Your task to perform on an android device: turn off smart reply in the gmail app Image 0: 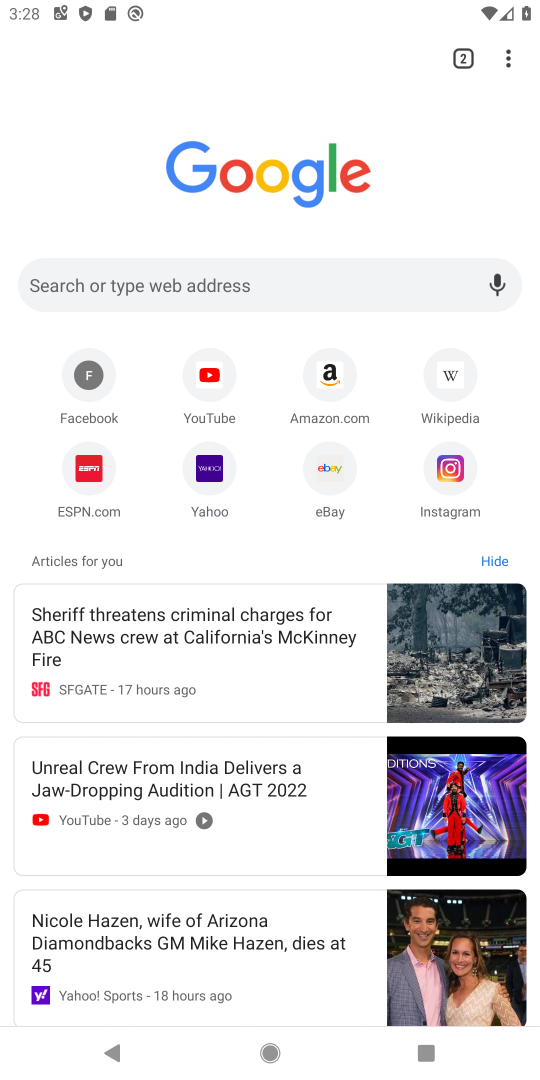
Step 0: press home button
Your task to perform on an android device: turn off smart reply in the gmail app Image 1: 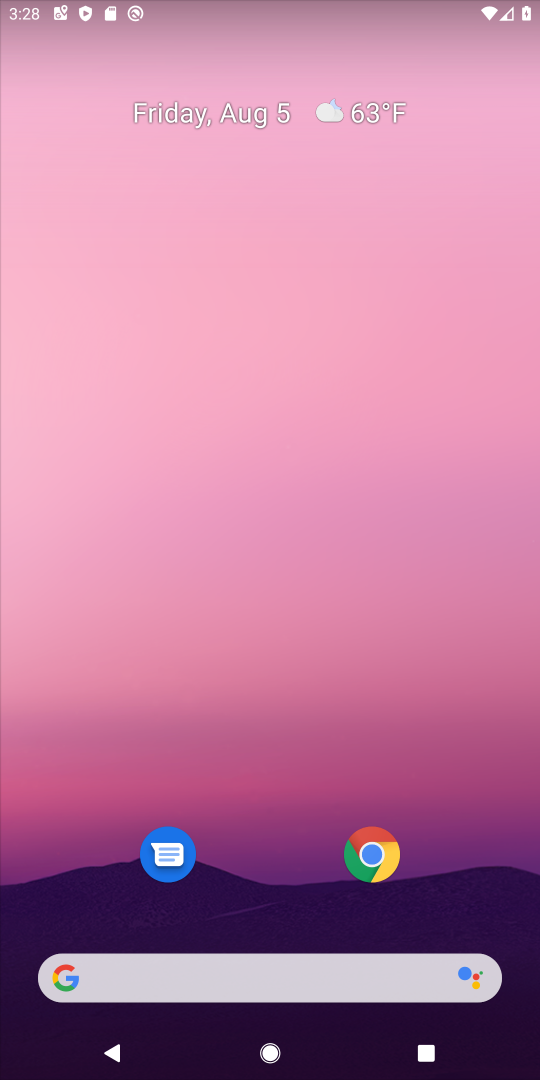
Step 1: drag from (39, 1044) to (397, 367)
Your task to perform on an android device: turn off smart reply in the gmail app Image 2: 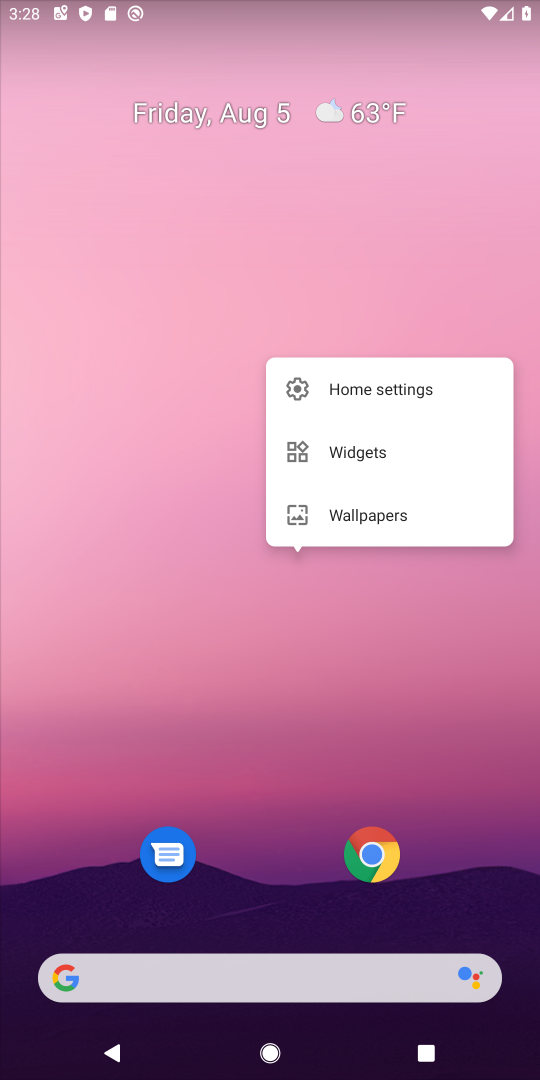
Step 2: drag from (28, 1051) to (165, 419)
Your task to perform on an android device: turn off smart reply in the gmail app Image 3: 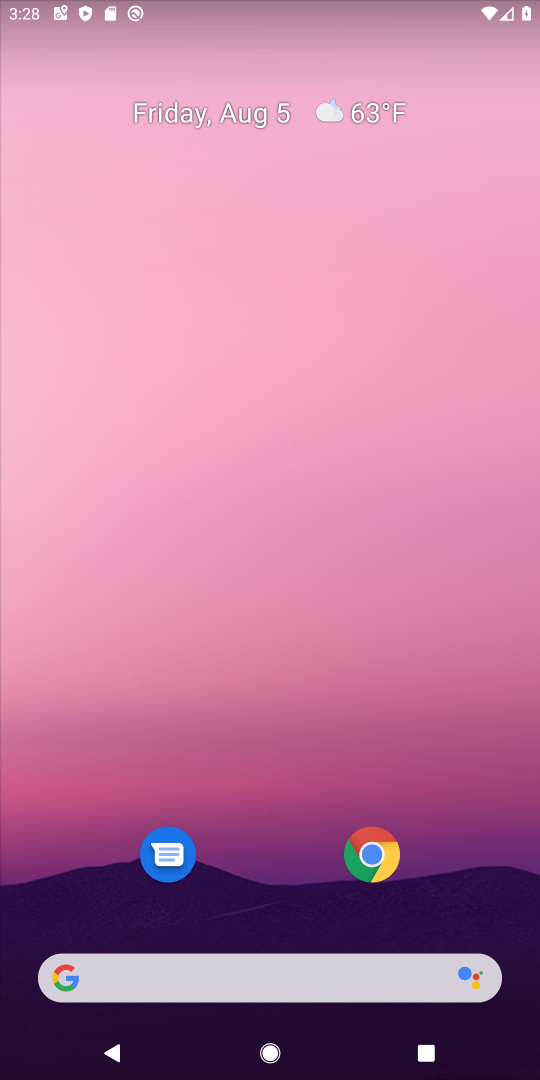
Step 3: drag from (207, 491) to (372, 255)
Your task to perform on an android device: turn off smart reply in the gmail app Image 4: 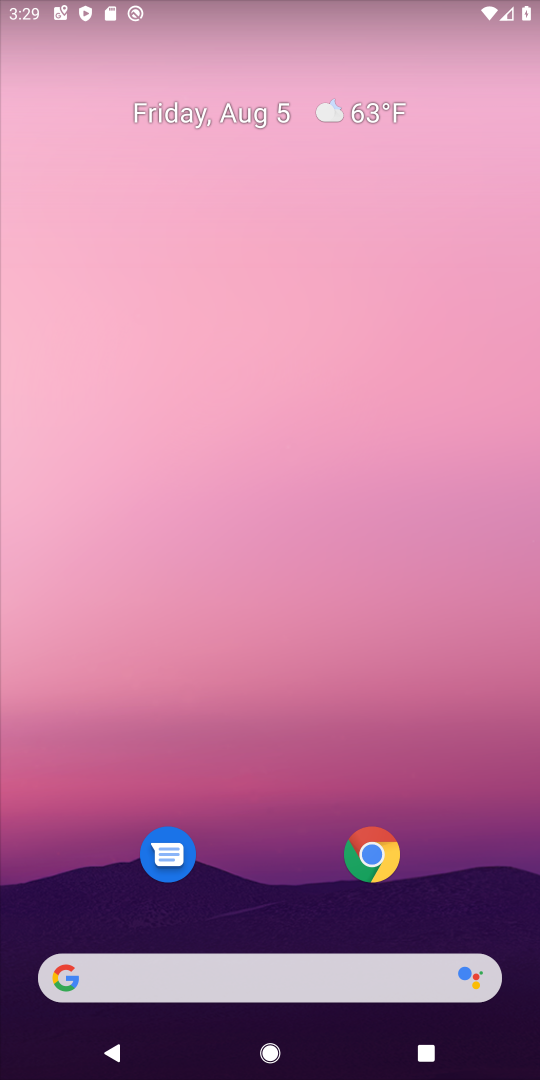
Step 4: drag from (66, 1030) to (304, 329)
Your task to perform on an android device: turn off smart reply in the gmail app Image 5: 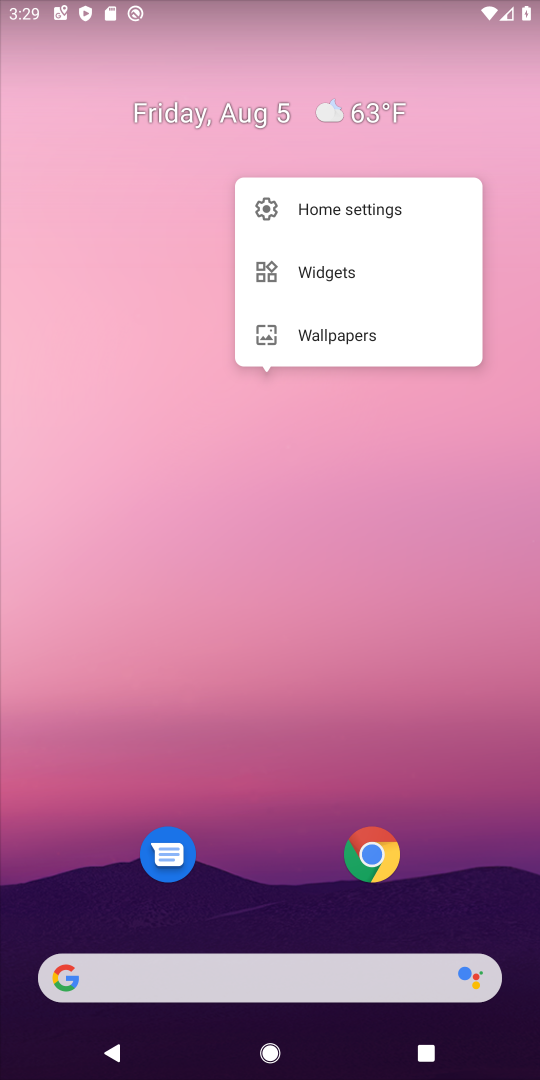
Step 5: drag from (85, 1032) to (408, 332)
Your task to perform on an android device: turn off smart reply in the gmail app Image 6: 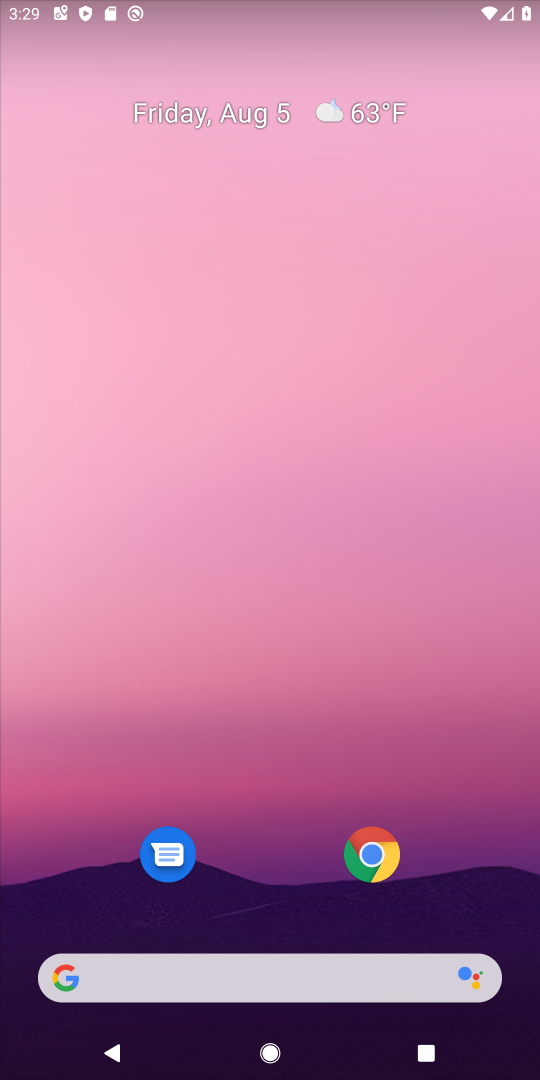
Step 6: drag from (182, 1014) to (350, 213)
Your task to perform on an android device: turn off smart reply in the gmail app Image 7: 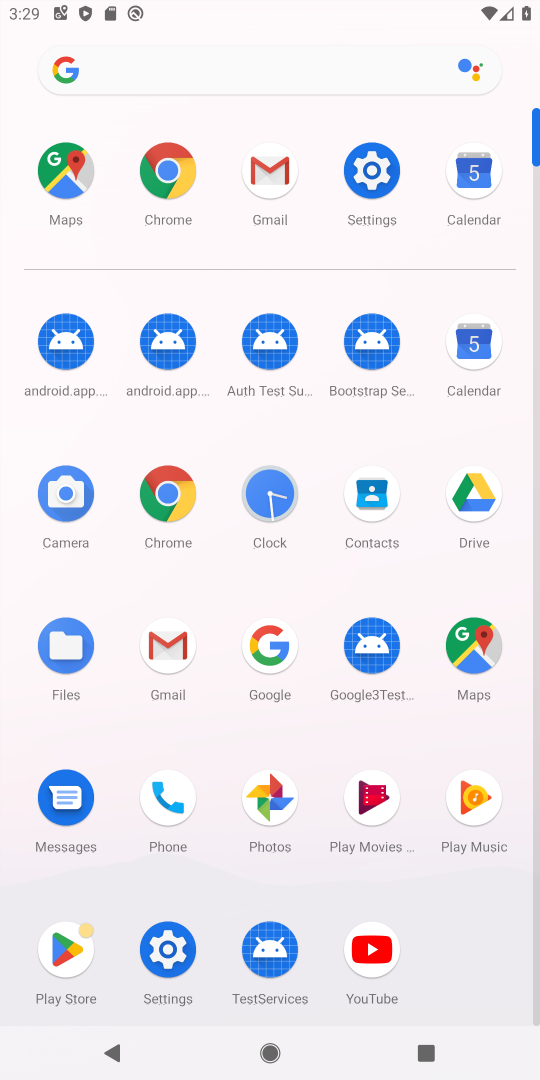
Step 7: click (279, 179)
Your task to perform on an android device: turn off smart reply in the gmail app Image 8: 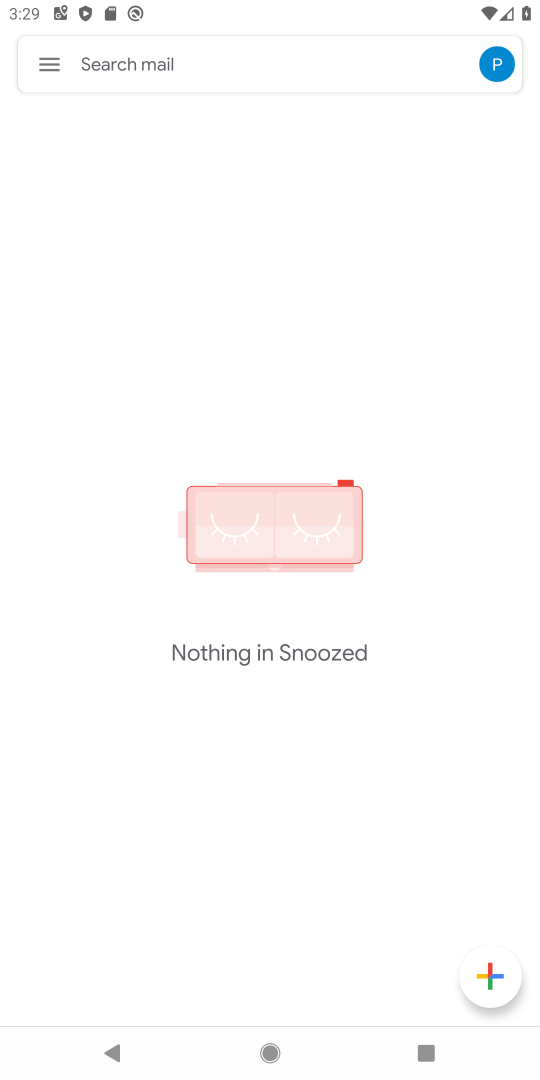
Step 8: click (41, 72)
Your task to perform on an android device: turn off smart reply in the gmail app Image 9: 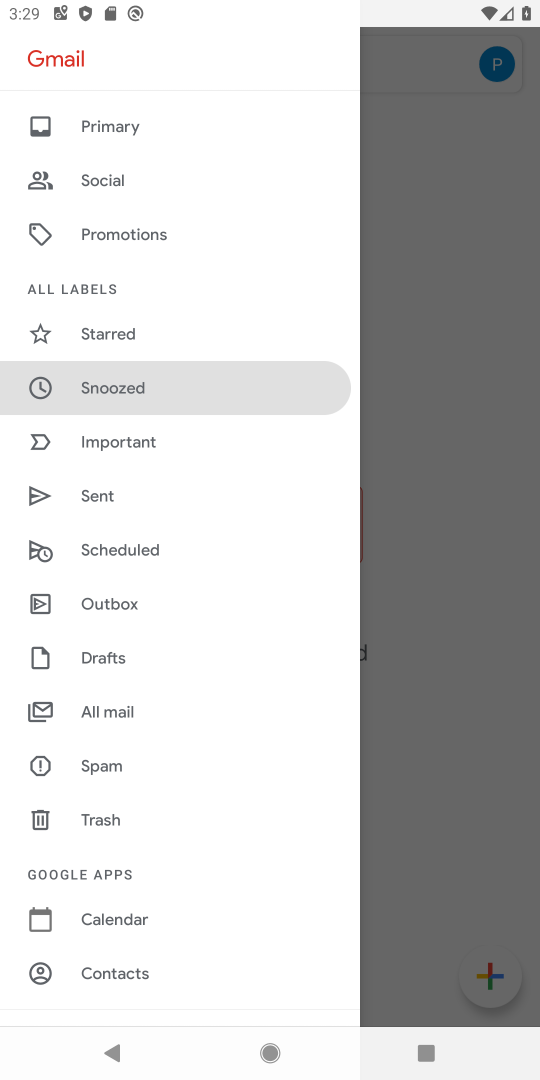
Step 9: click (127, 128)
Your task to perform on an android device: turn off smart reply in the gmail app Image 10: 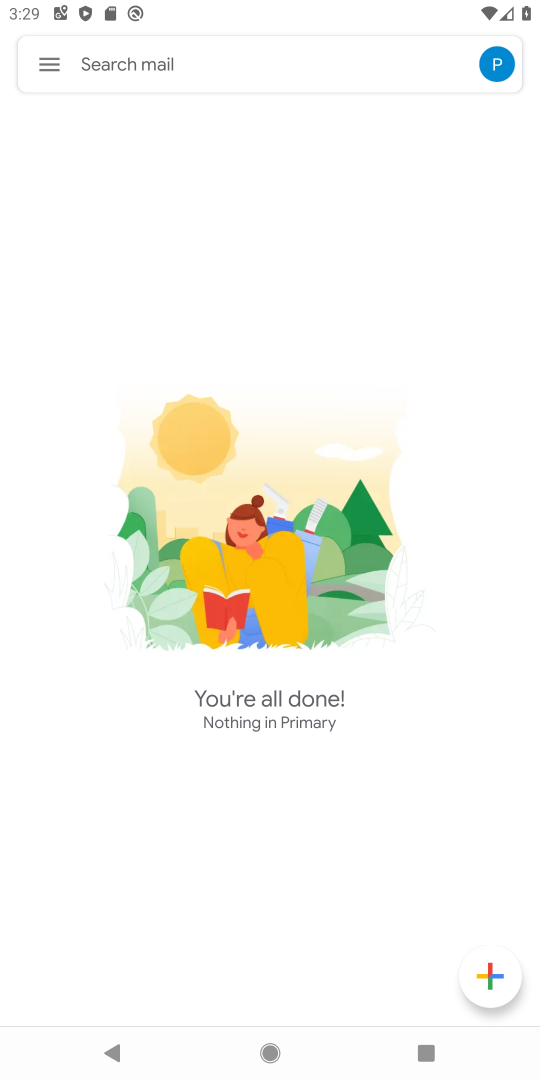
Step 10: click (64, 80)
Your task to perform on an android device: turn off smart reply in the gmail app Image 11: 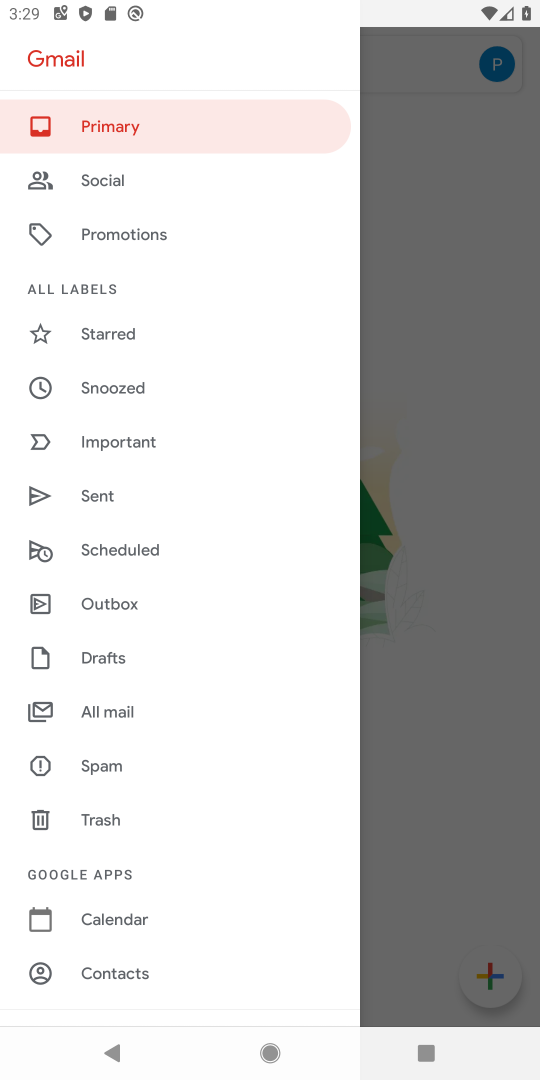
Step 11: drag from (231, 768) to (219, 580)
Your task to perform on an android device: turn off smart reply in the gmail app Image 12: 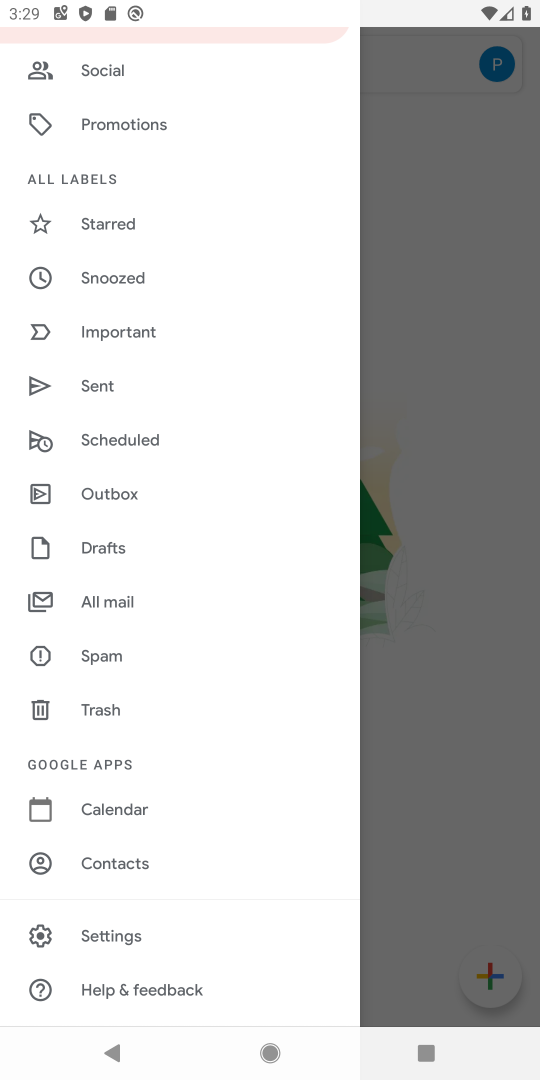
Step 12: click (97, 935)
Your task to perform on an android device: turn off smart reply in the gmail app Image 13: 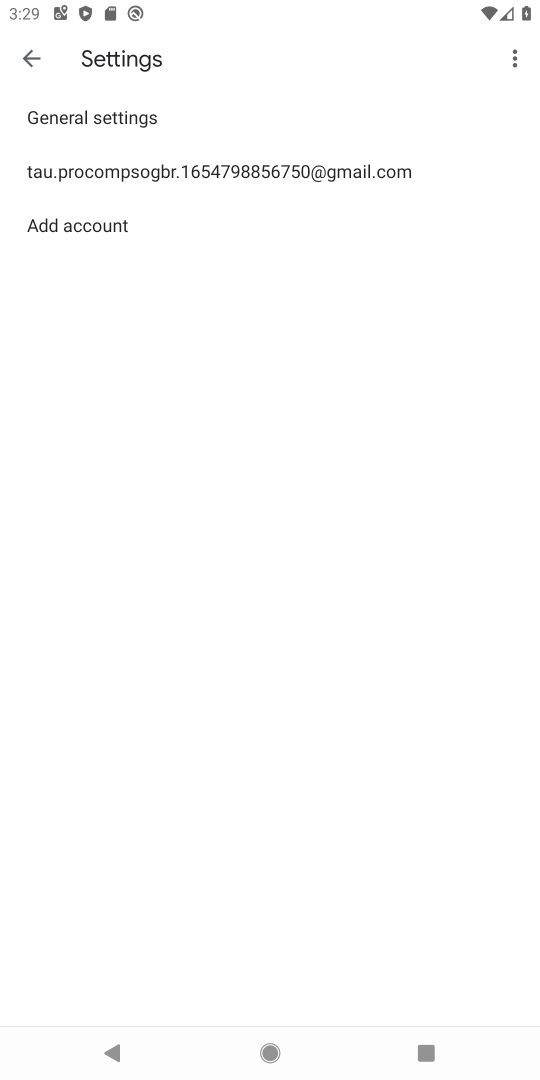
Step 13: click (90, 126)
Your task to perform on an android device: turn off smart reply in the gmail app Image 14: 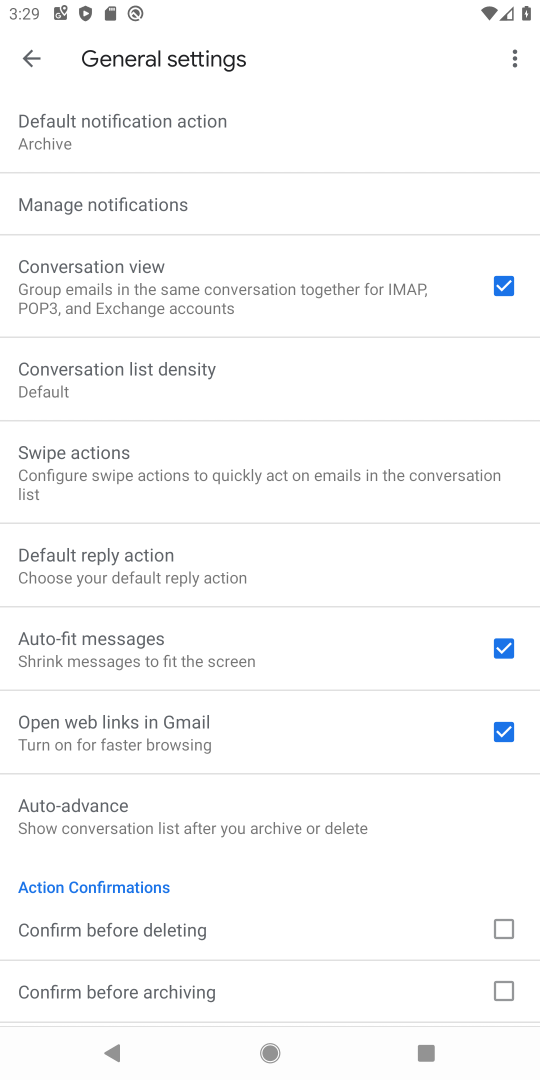
Step 14: click (90, 126)
Your task to perform on an android device: turn off smart reply in the gmail app Image 15: 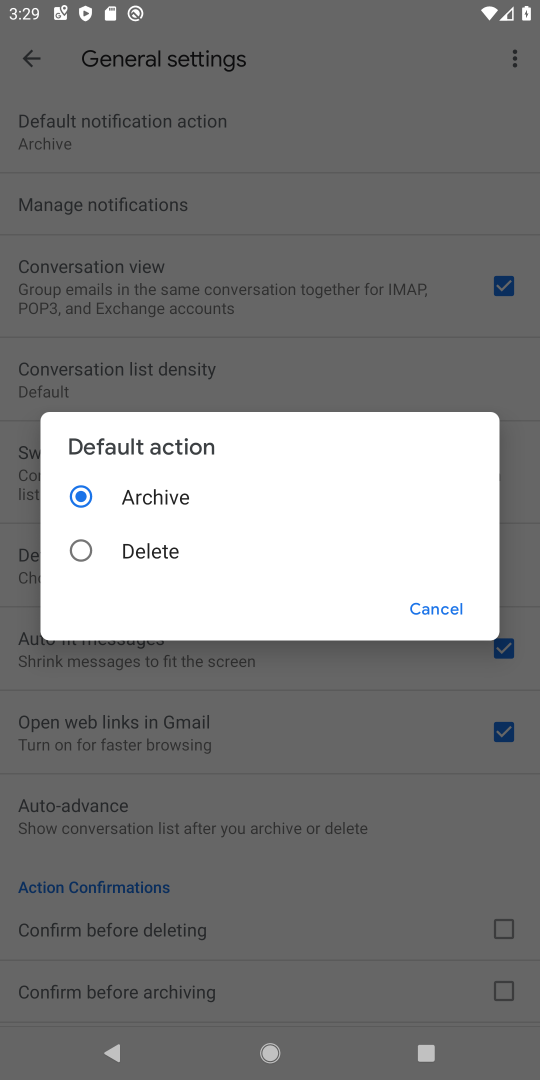
Step 15: click (436, 605)
Your task to perform on an android device: turn off smart reply in the gmail app Image 16: 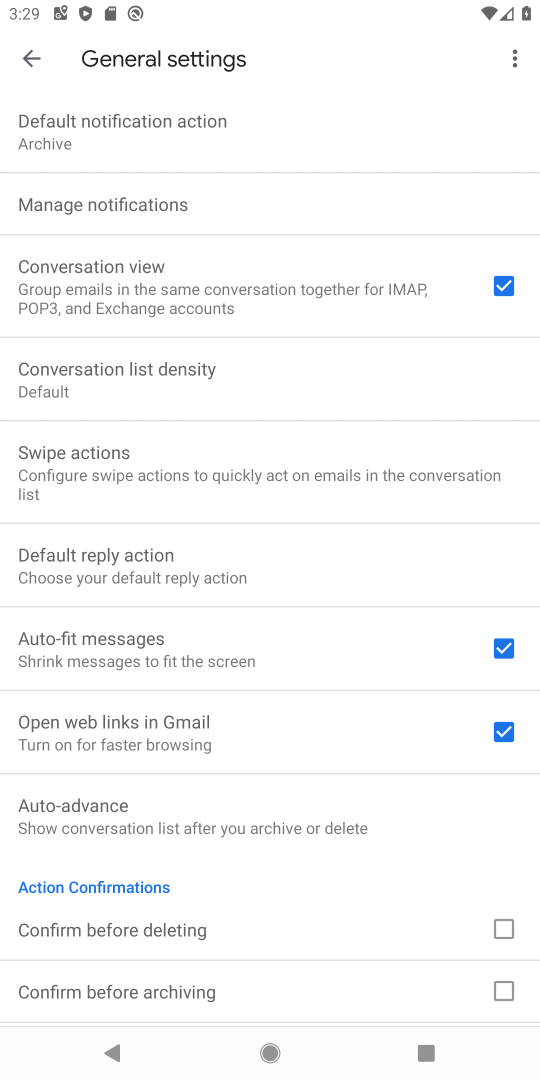
Step 16: task complete